Your task to perform on an android device: add a contact Image 0: 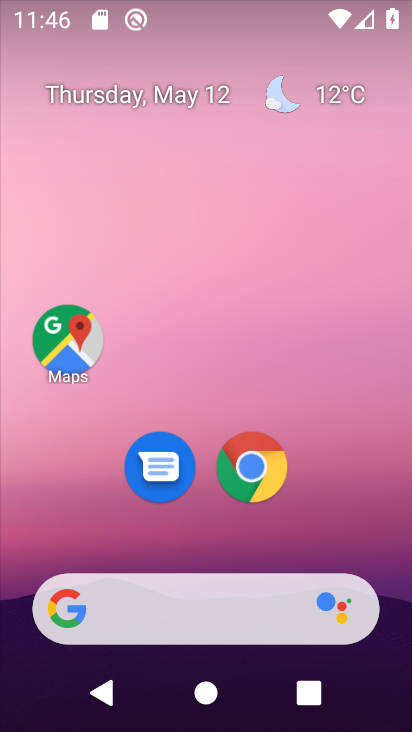
Step 0: drag from (337, 443) to (248, 36)
Your task to perform on an android device: add a contact Image 1: 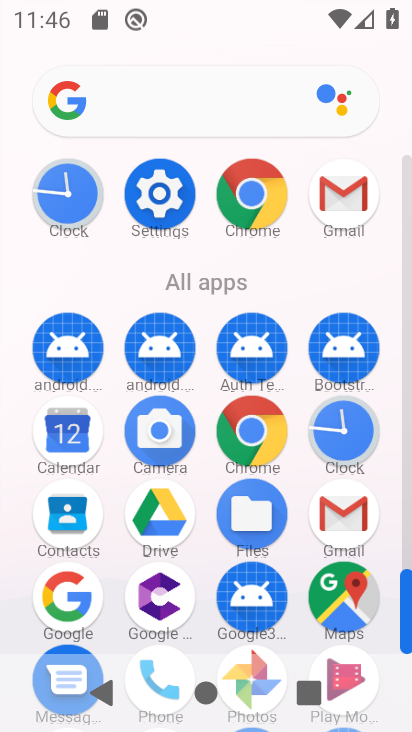
Step 1: click (78, 526)
Your task to perform on an android device: add a contact Image 2: 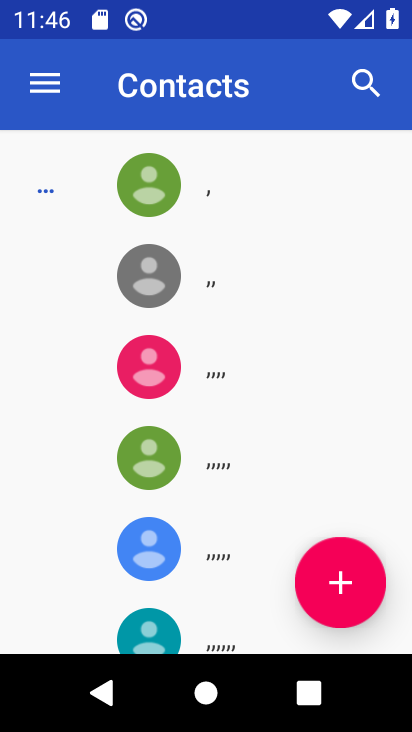
Step 2: click (342, 565)
Your task to perform on an android device: add a contact Image 3: 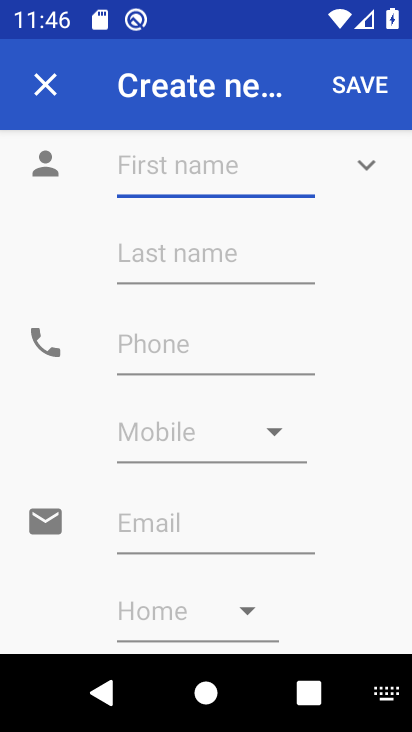
Step 3: type "dfgsf"
Your task to perform on an android device: add a contact Image 4: 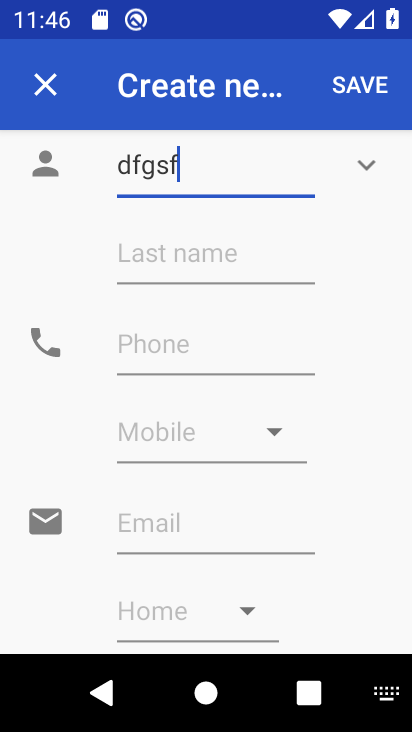
Step 4: type ""
Your task to perform on an android device: add a contact Image 5: 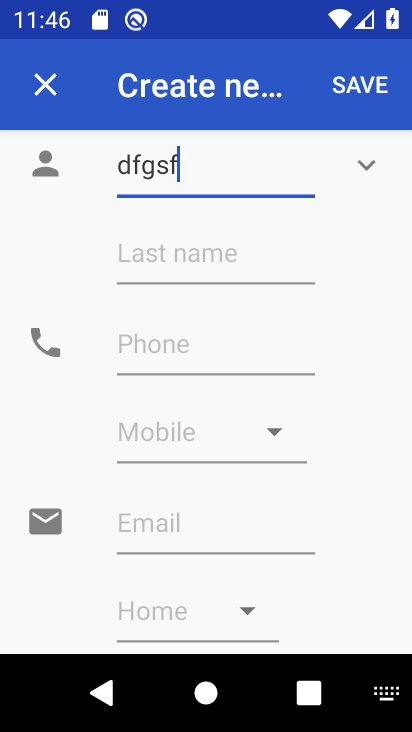
Step 5: click (129, 266)
Your task to perform on an android device: add a contact Image 6: 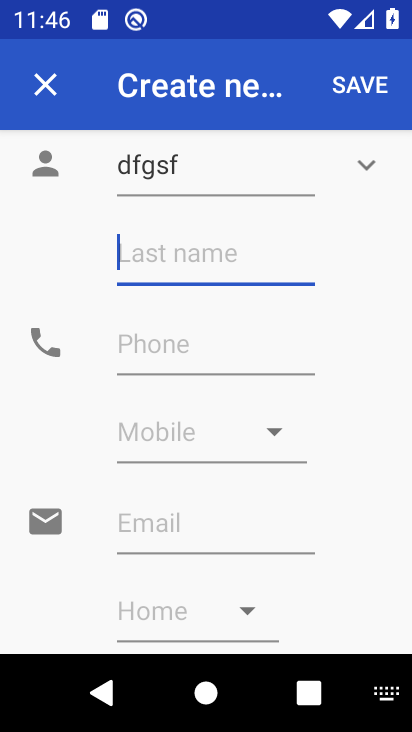
Step 6: type "fgsdfg"
Your task to perform on an android device: add a contact Image 7: 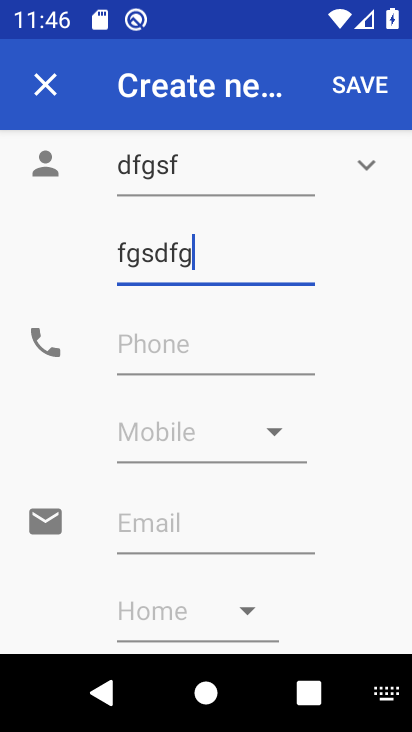
Step 7: type ""
Your task to perform on an android device: add a contact Image 8: 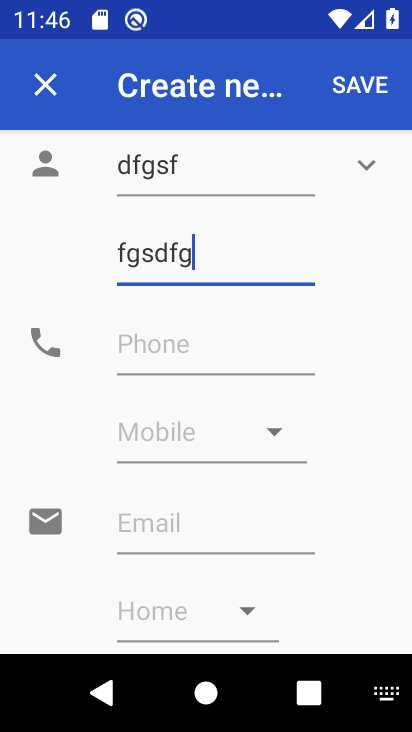
Step 8: click (224, 350)
Your task to perform on an android device: add a contact Image 9: 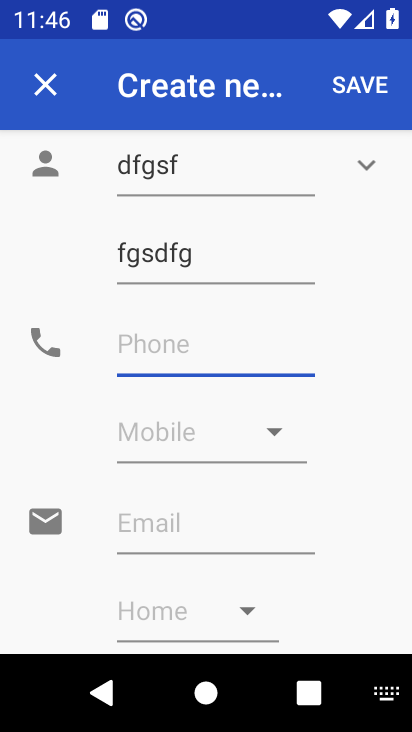
Step 9: type "563456435"
Your task to perform on an android device: add a contact Image 10: 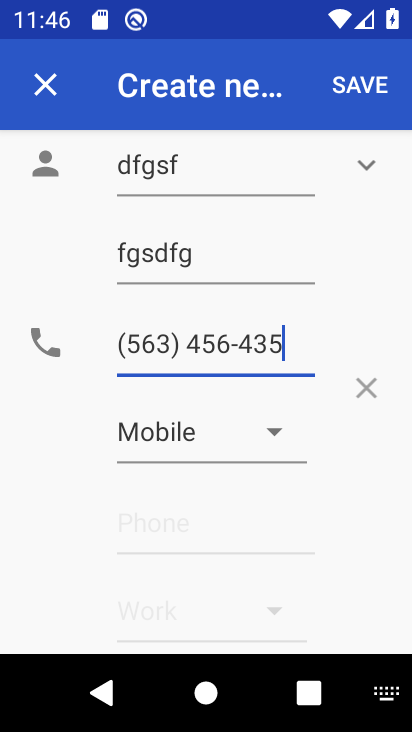
Step 10: type ""
Your task to perform on an android device: add a contact Image 11: 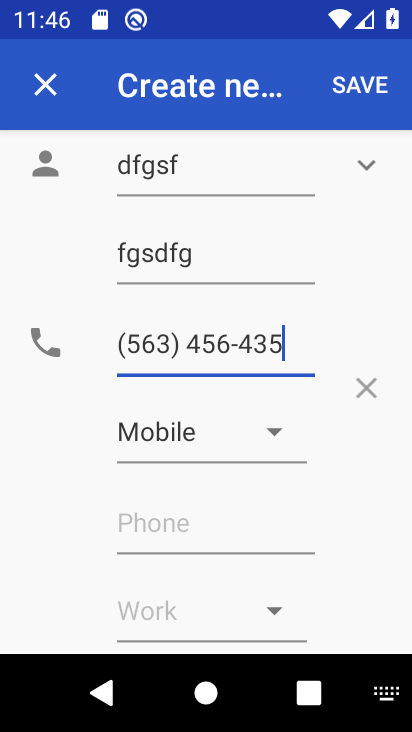
Step 11: click (367, 84)
Your task to perform on an android device: add a contact Image 12: 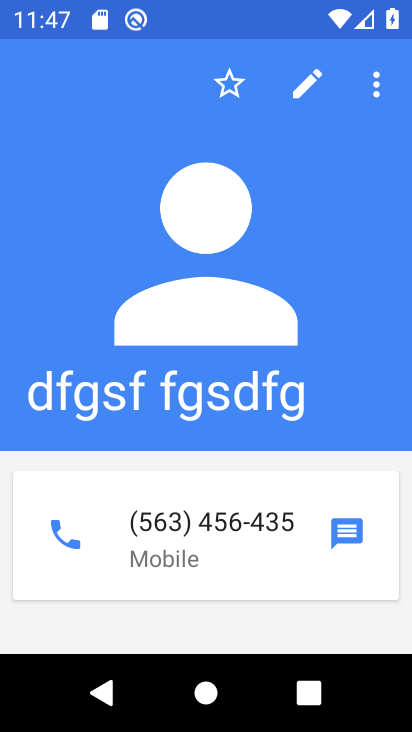
Step 12: task complete